Your task to perform on an android device: turn on wifi Image 0: 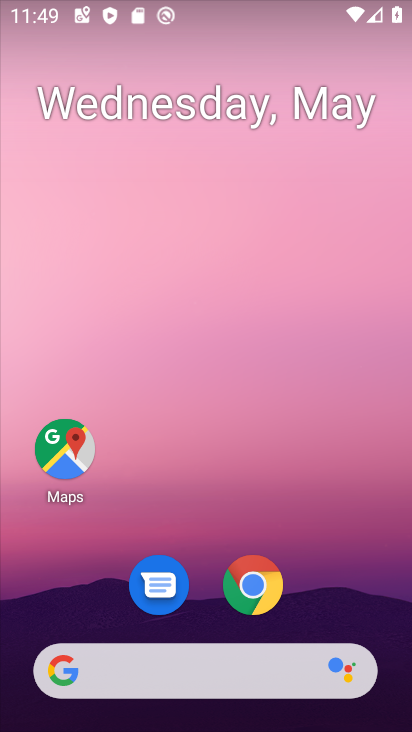
Step 0: drag from (209, 508) to (258, 34)
Your task to perform on an android device: turn on wifi Image 1: 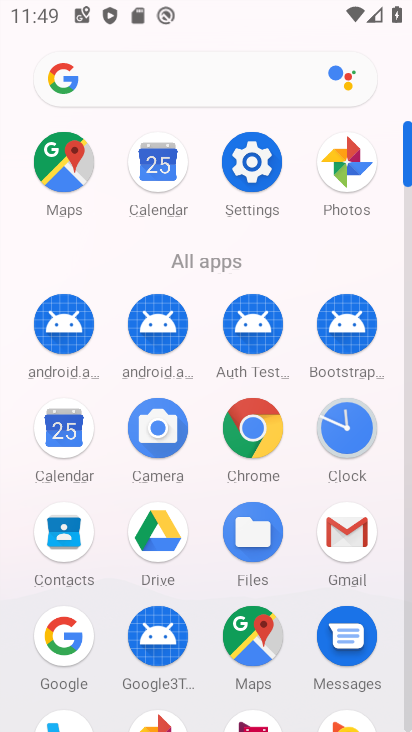
Step 1: click (240, 157)
Your task to perform on an android device: turn on wifi Image 2: 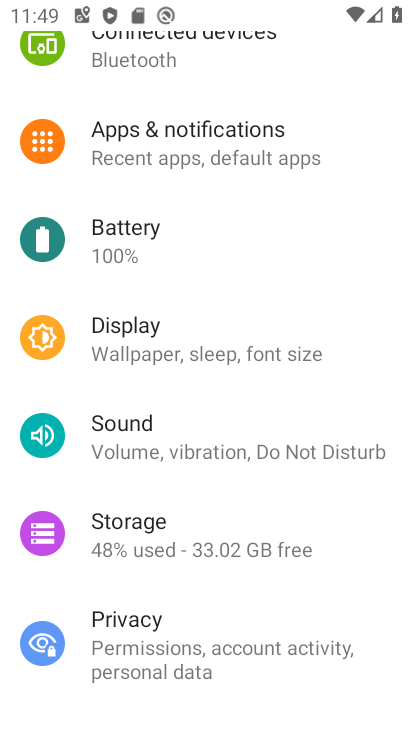
Step 2: drag from (230, 215) to (226, 540)
Your task to perform on an android device: turn on wifi Image 3: 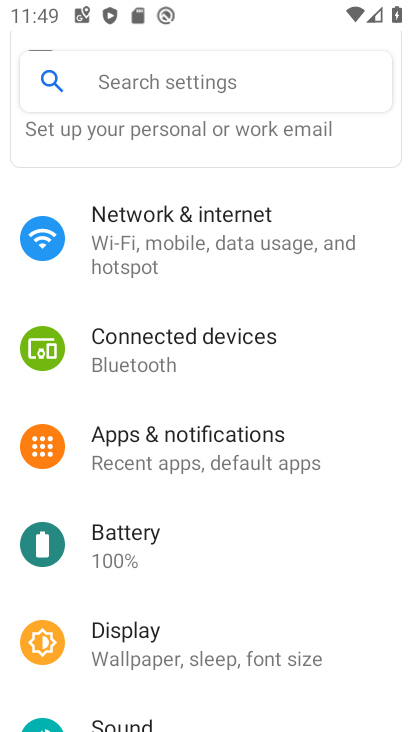
Step 3: click (217, 241)
Your task to perform on an android device: turn on wifi Image 4: 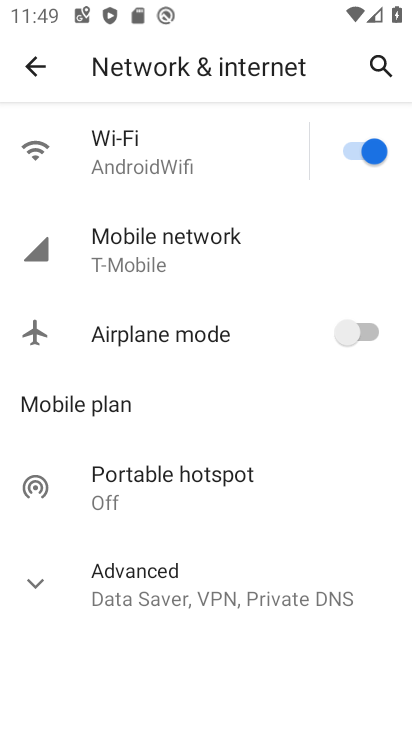
Step 4: task complete